Your task to perform on an android device: change alarm snooze length Image 0: 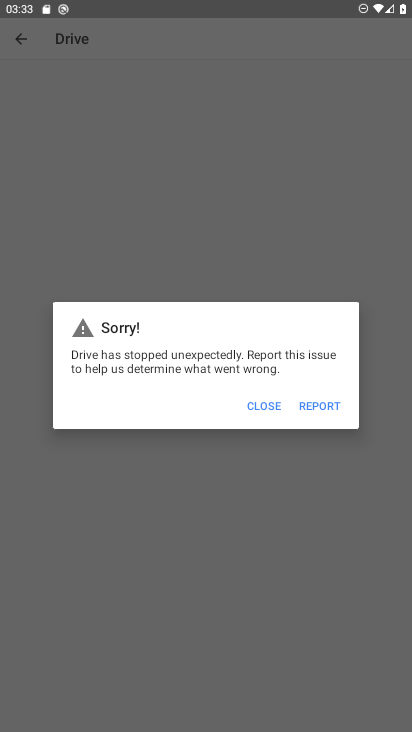
Step 0: press home button
Your task to perform on an android device: change alarm snooze length Image 1: 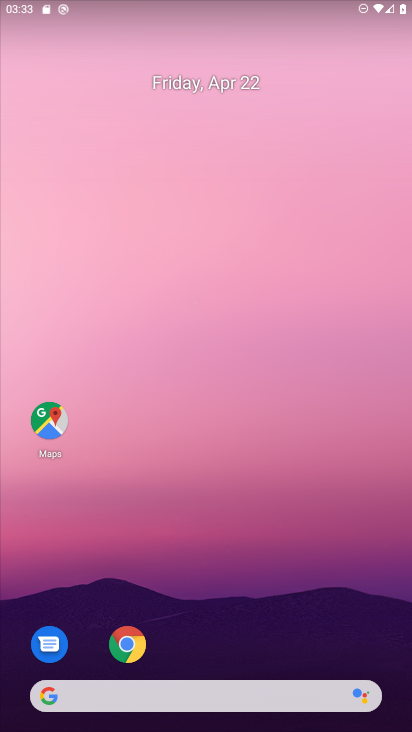
Step 1: drag from (241, 586) to (147, 128)
Your task to perform on an android device: change alarm snooze length Image 2: 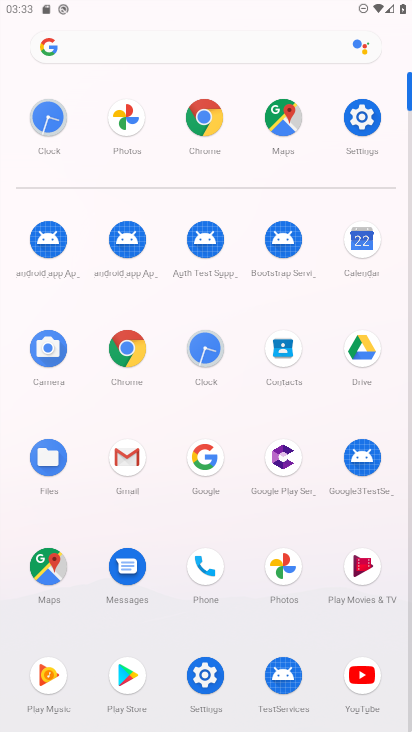
Step 2: click (210, 345)
Your task to perform on an android device: change alarm snooze length Image 3: 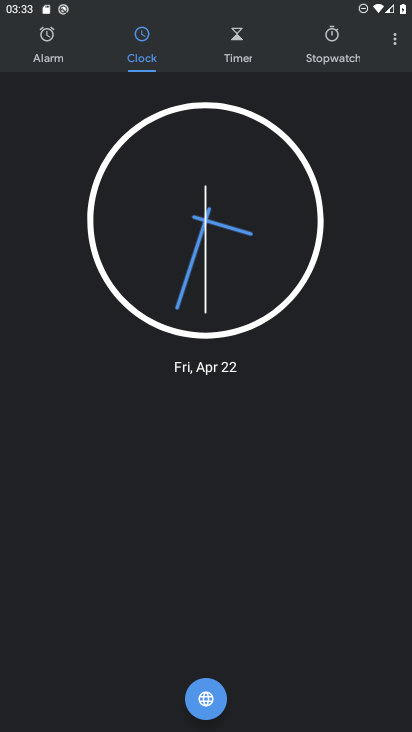
Step 3: drag from (397, 36) to (342, 83)
Your task to perform on an android device: change alarm snooze length Image 4: 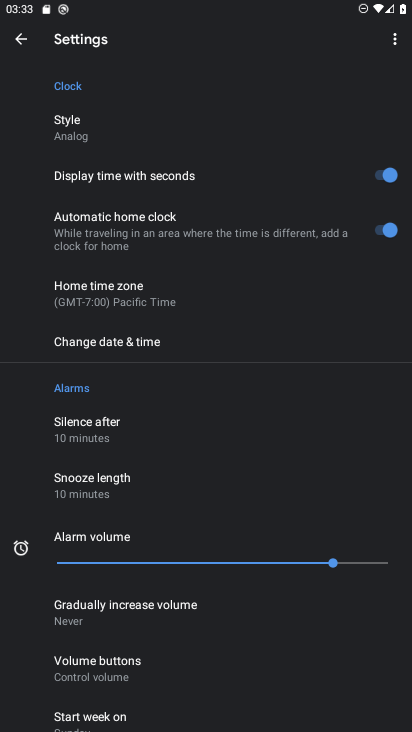
Step 4: click (109, 483)
Your task to perform on an android device: change alarm snooze length Image 5: 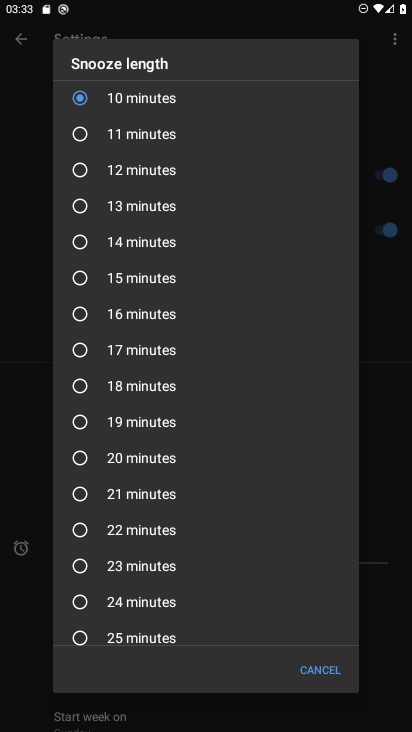
Step 5: click (139, 133)
Your task to perform on an android device: change alarm snooze length Image 6: 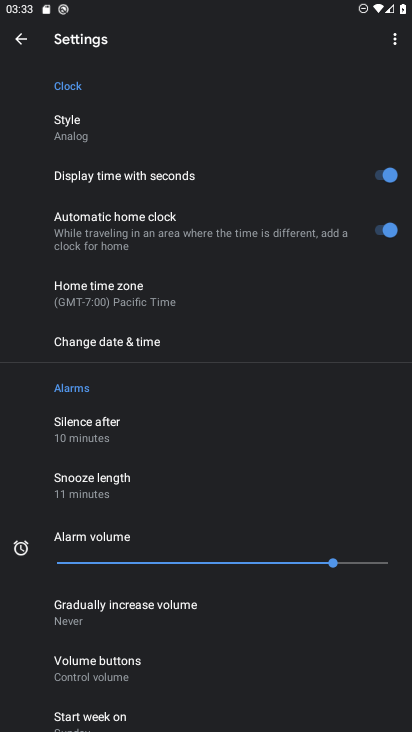
Step 6: task complete